Your task to perform on an android device: find which apps use the phone's location Image 0: 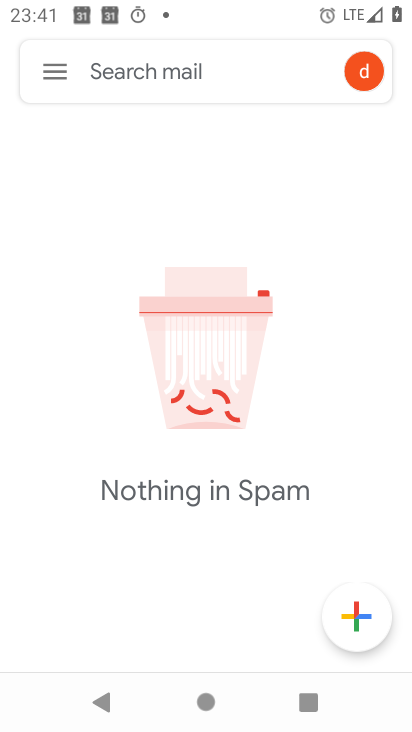
Step 0: press home button
Your task to perform on an android device: find which apps use the phone's location Image 1: 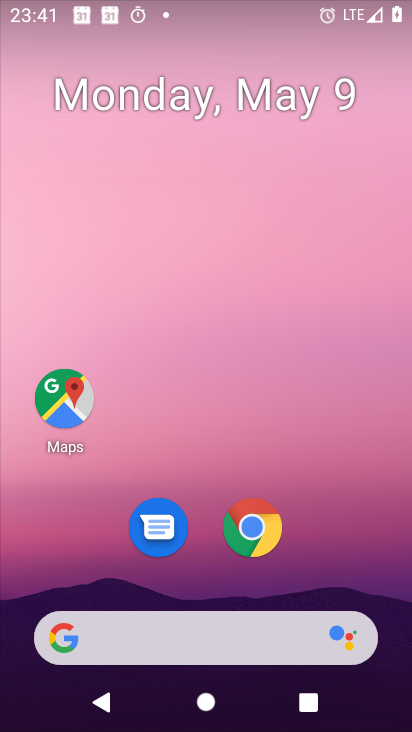
Step 1: drag from (199, 580) to (223, 102)
Your task to perform on an android device: find which apps use the phone's location Image 2: 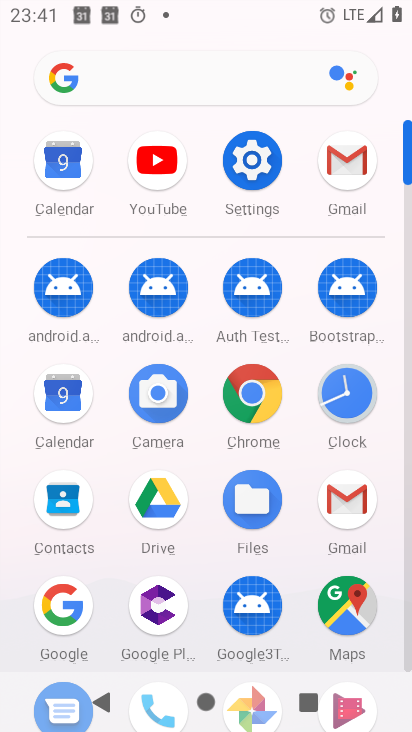
Step 2: drag from (208, 442) to (199, 391)
Your task to perform on an android device: find which apps use the phone's location Image 3: 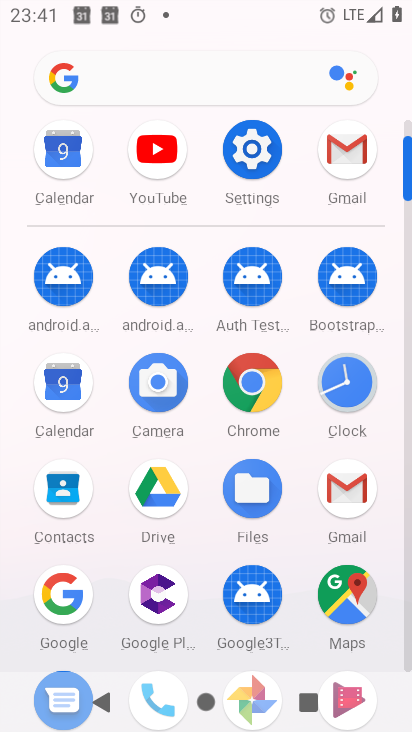
Step 3: click (255, 155)
Your task to perform on an android device: find which apps use the phone's location Image 4: 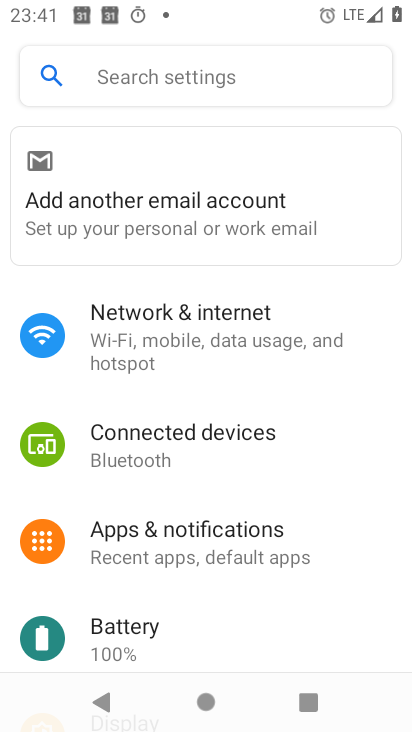
Step 4: drag from (232, 496) to (267, 13)
Your task to perform on an android device: find which apps use the phone's location Image 5: 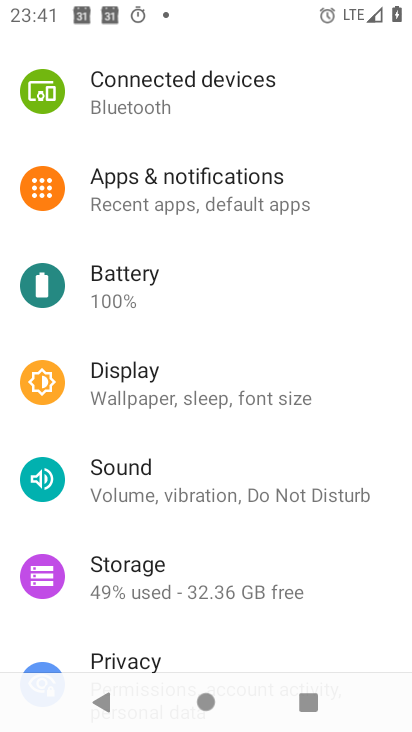
Step 5: drag from (234, 542) to (224, 262)
Your task to perform on an android device: find which apps use the phone's location Image 6: 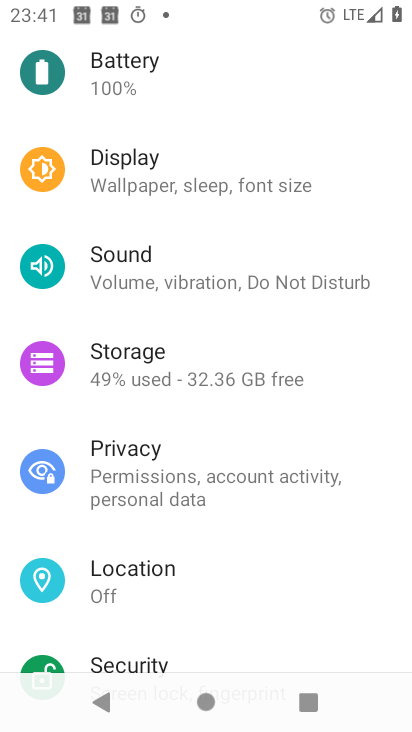
Step 6: click (179, 568)
Your task to perform on an android device: find which apps use the phone's location Image 7: 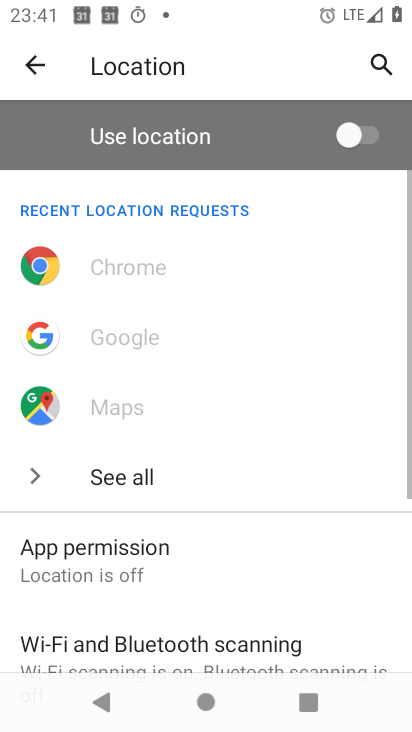
Step 7: click (146, 571)
Your task to perform on an android device: find which apps use the phone's location Image 8: 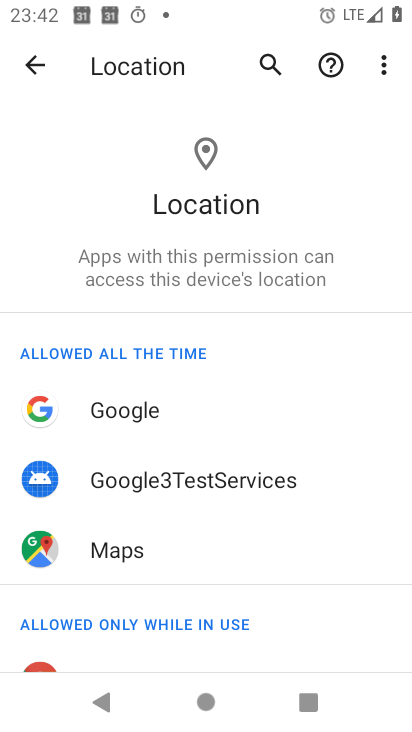
Step 8: task complete